Your task to perform on an android device: Go to Android settings Image 0: 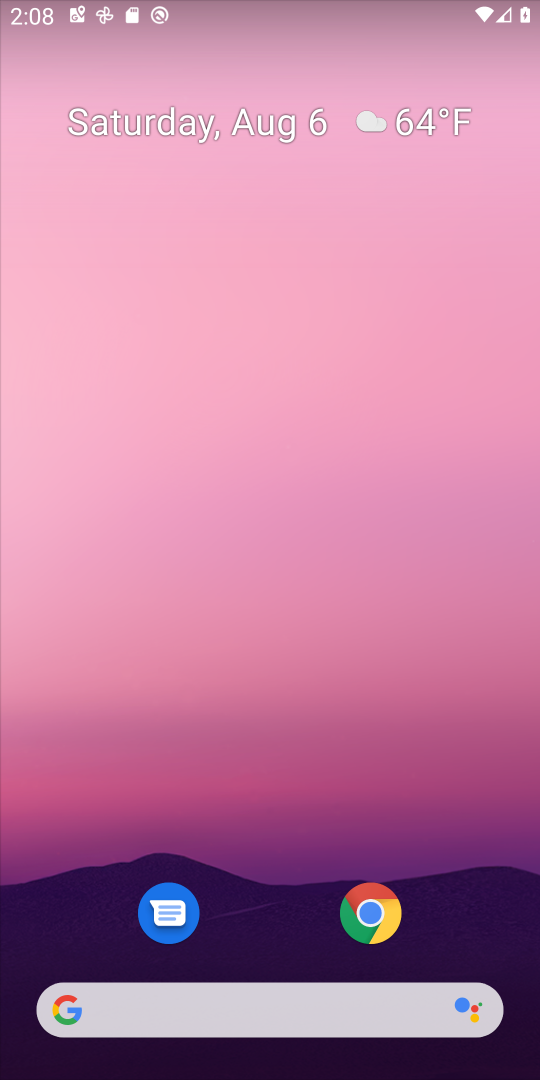
Step 0: drag from (474, 932) to (480, 439)
Your task to perform on an android device: Go to Android settings Image 1: 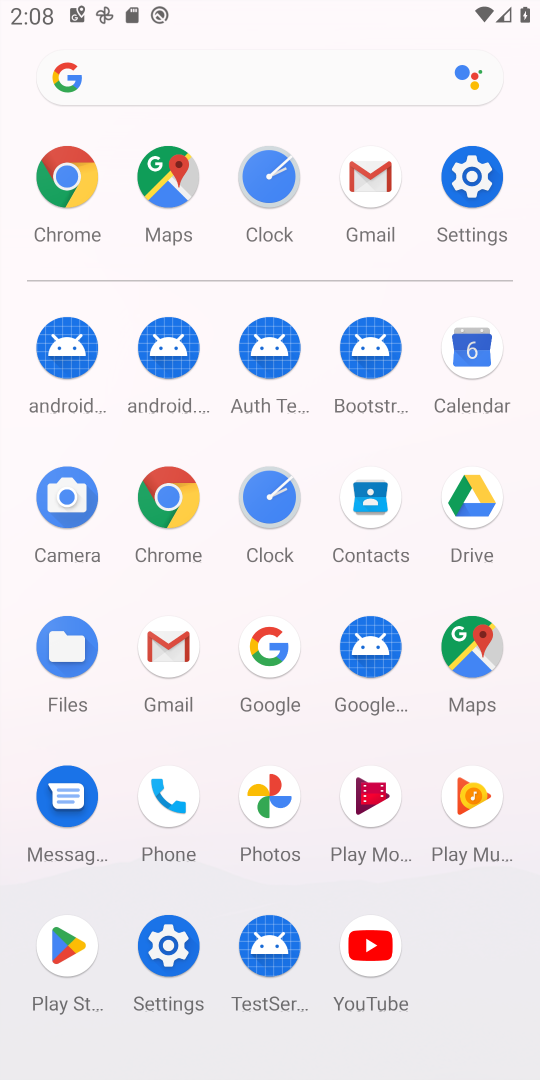
Step 1: click (476, 176)
Your task to perform on an android device: Go to Android settings Image 2: 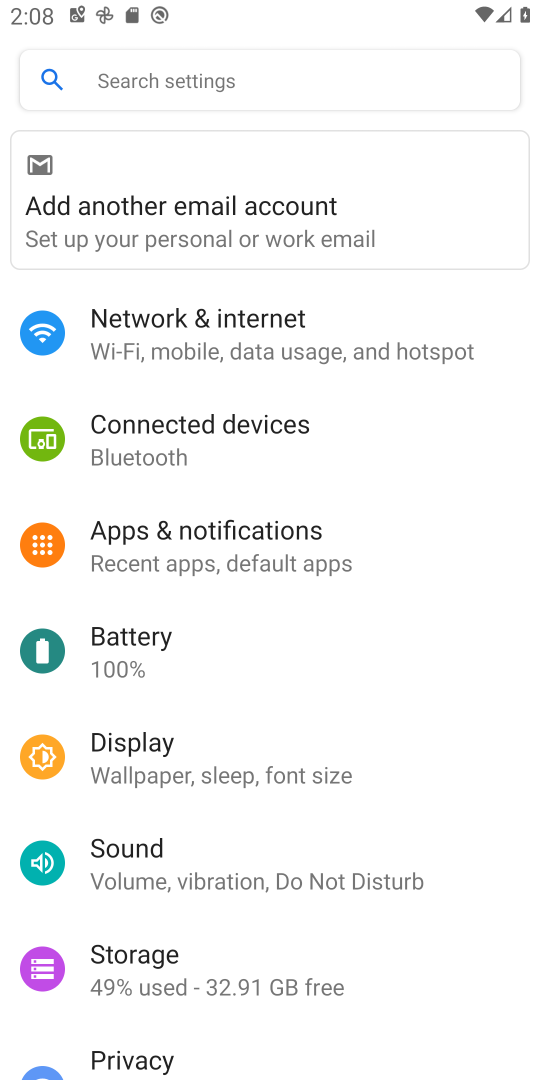
Step 2: drag from (477, 650) to (473, 537)
Your task to perform on an android device: Go to Android settings Image 3: 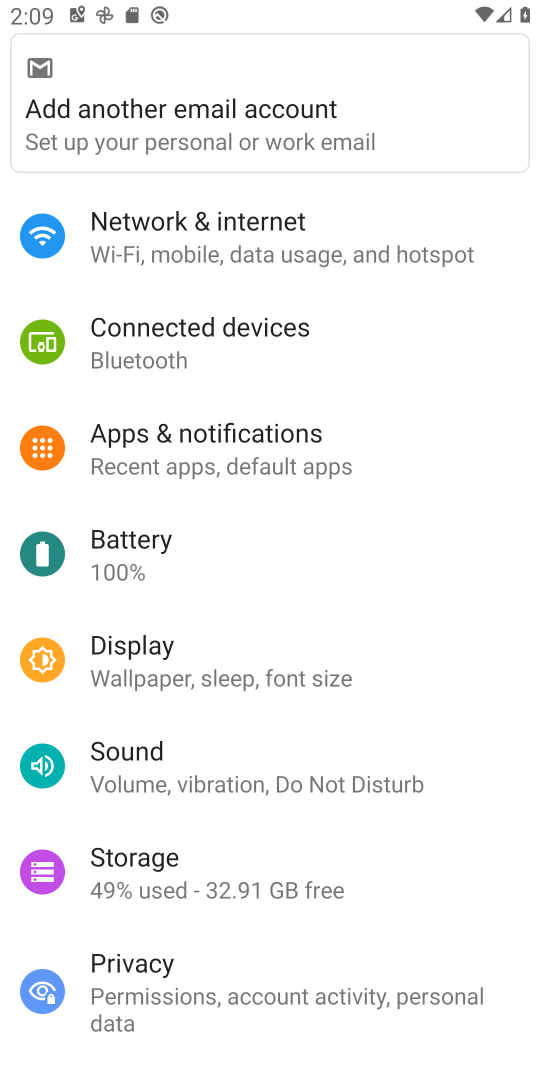
Step 3: drag from (447, 689) to (447, 572)
Your task to perform on an android device: Go to Android settings Image 4: 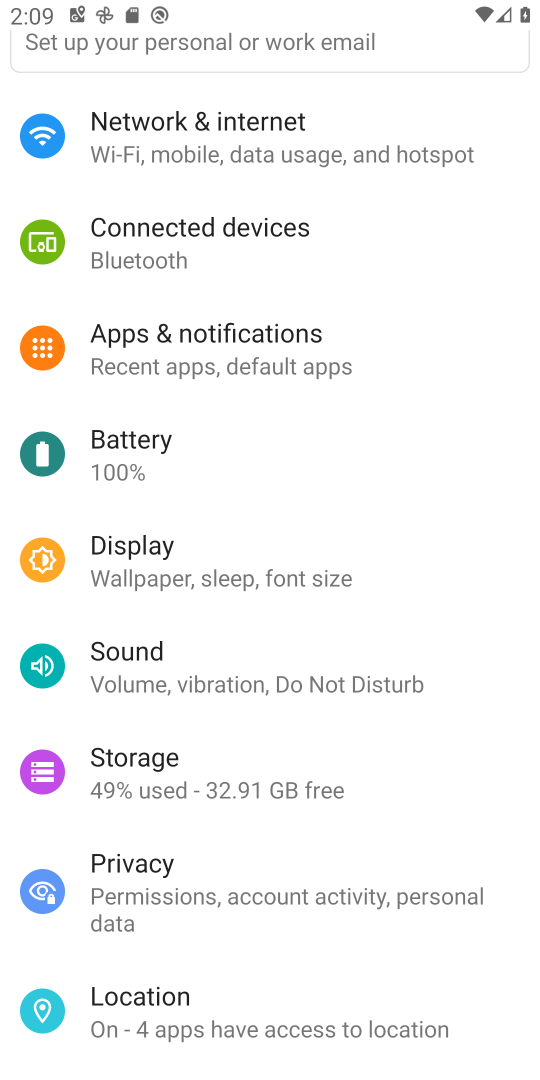
Step 4: drag from (459, 756) to (476, 605)
Your task to perform on an android device: Go to Android settings Image 5: 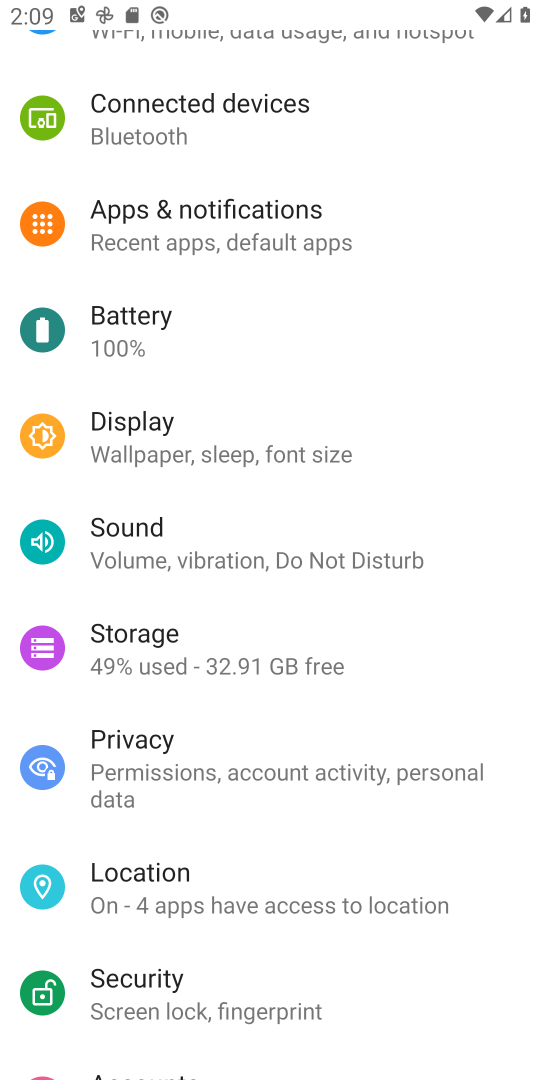
Step 5: drag from (489, 831) to (487, 681)
Your task to perform on an android device: Go to Android settings Image 6: 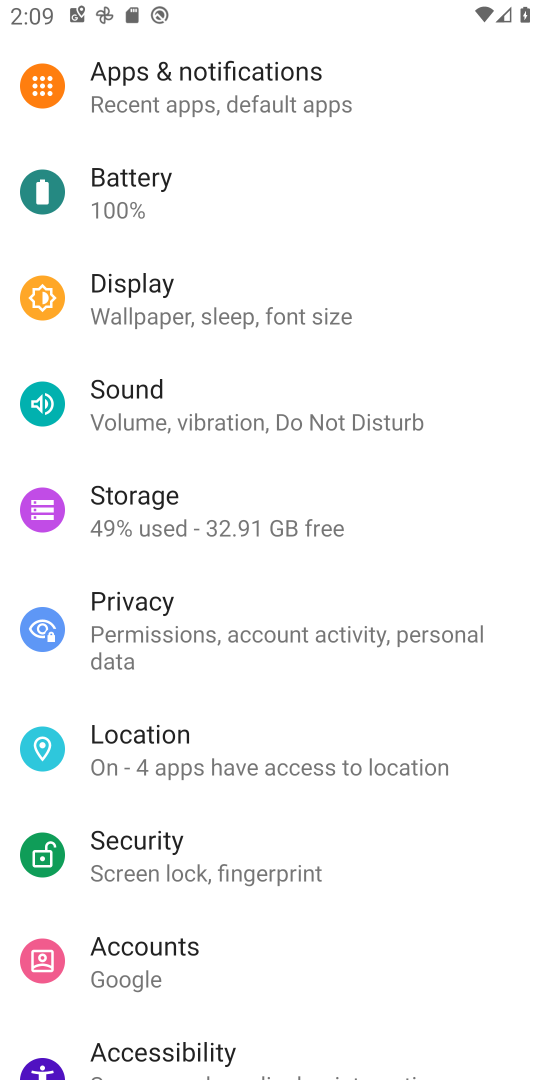
Step 6: drag from (490, 849) to (501, 716)
Your task to perform on an android device: Go to Android settings Image 7: 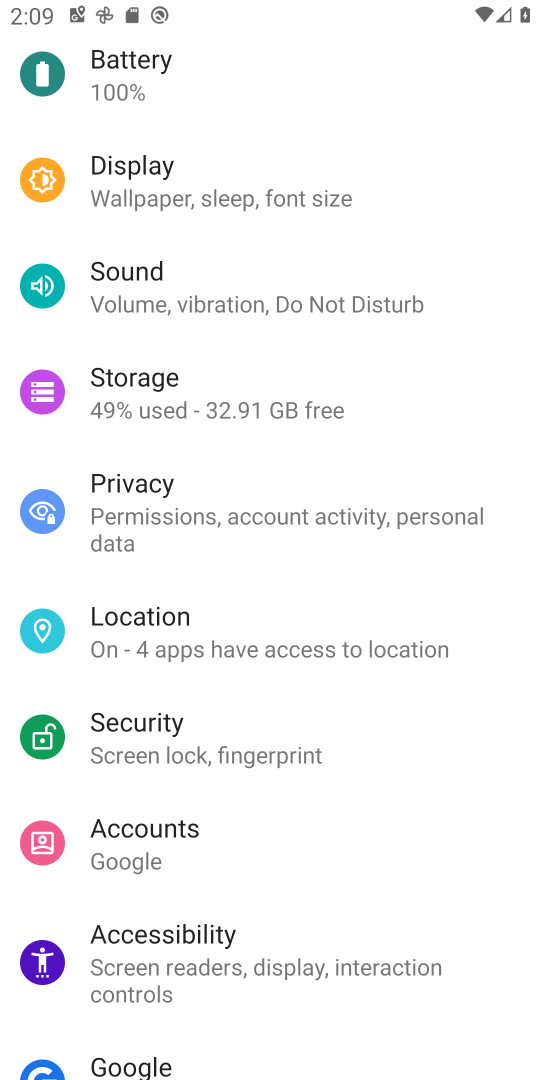
Step 7: drag from (483, 882) to (459, 781)
Your task to perform on an android device: Go to Android settings Image 8: 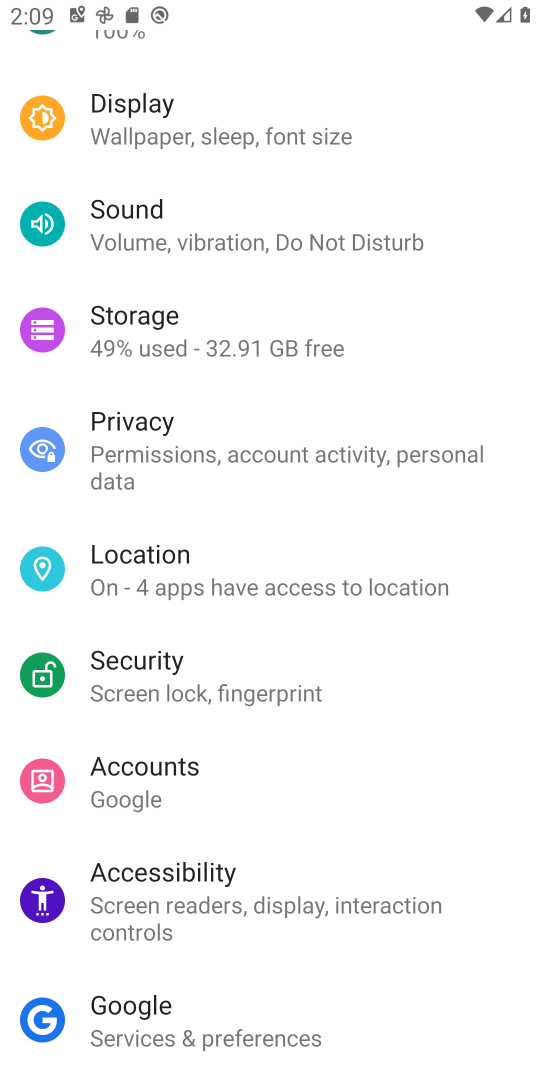
Step 8: drag from (467, 905) to (441, 765)
Your task to perform on an android device: Go to Android settings Image 9: 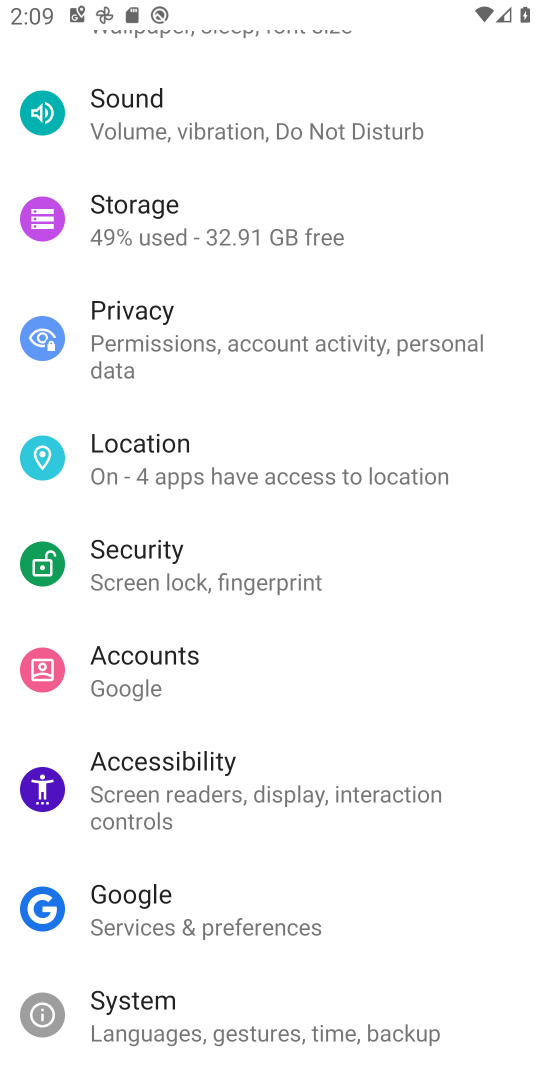
Step 9: drag from (424, 934) to (445, 748)
Your task to perform on an android device: Go to Android settings Image 10: 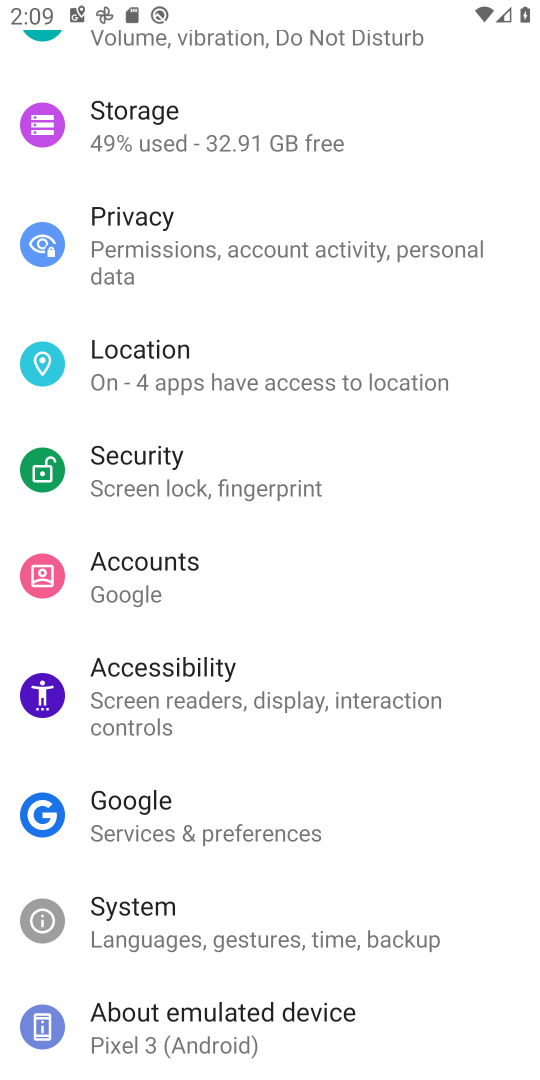
Step 10: click (411, 925)
Your task to perform on an android device: Go to Android settings Image 11: 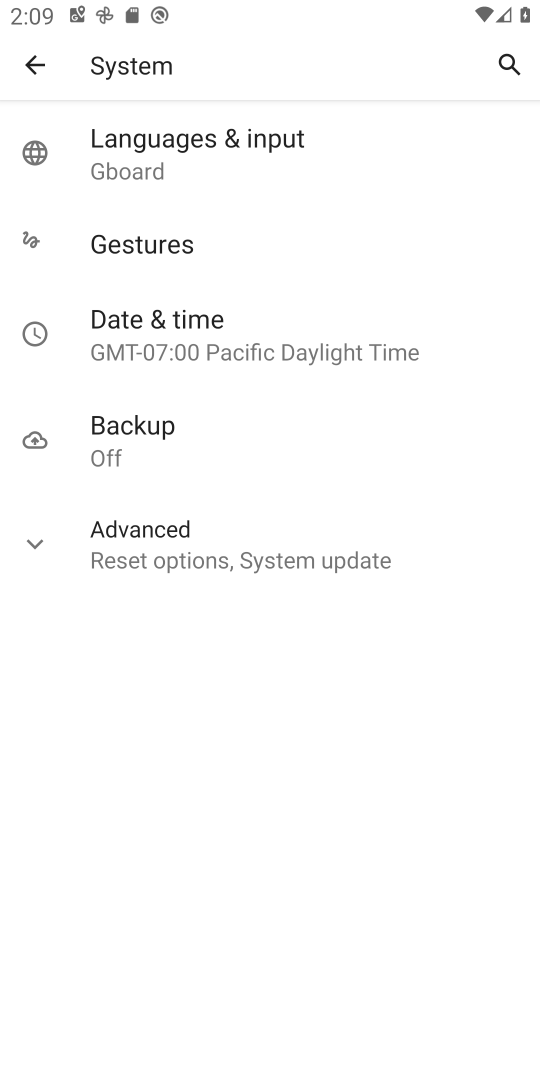
Step 11: click (362, 525)
Your task to perform on an android device: Go to Android settings Image 12: 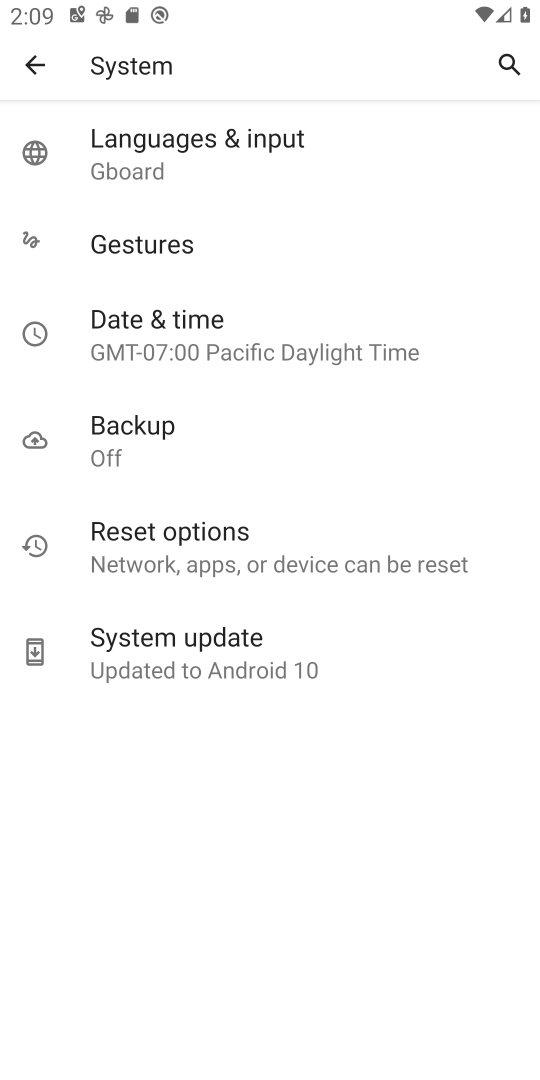
Step 12: task complete